Your task to perform on an android device: check google app version Image 0: 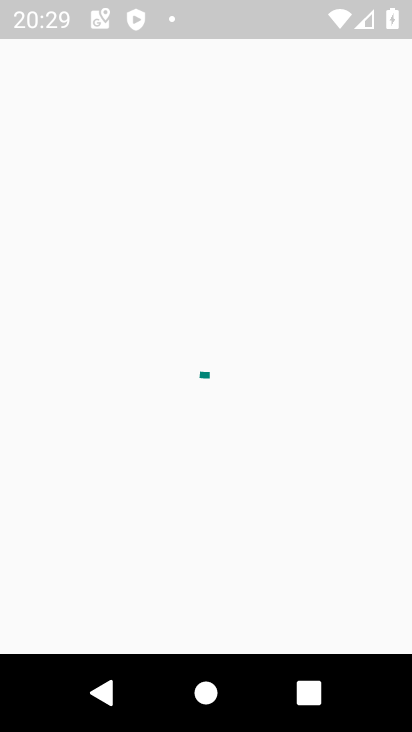
Step 0: press home button
Your task to perform on an android device: check google app version Image 1: 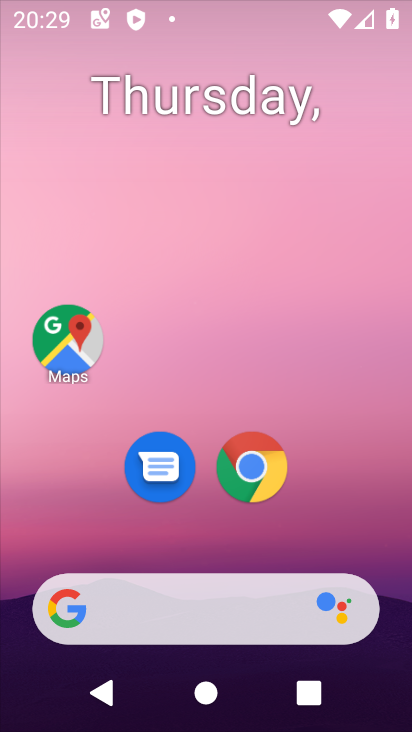
Step 1: drag from (326, 451) to (332, 261)
Your task to perform on an android device: check google app version Image 2: 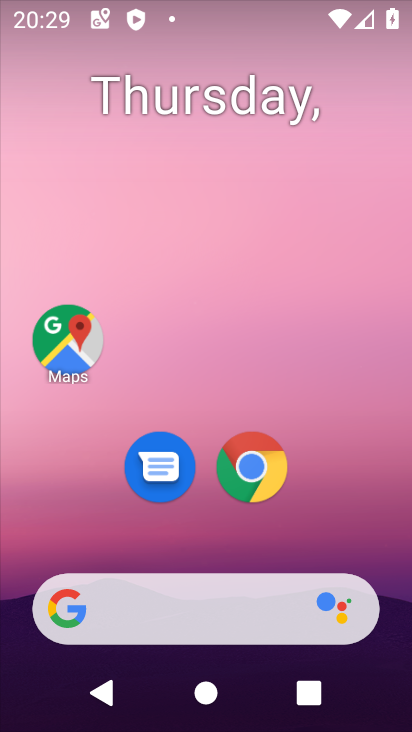
Step 2: drag from (225, 473) to (242, 155)
Your task to perform on an android device: check google app version Image 3: 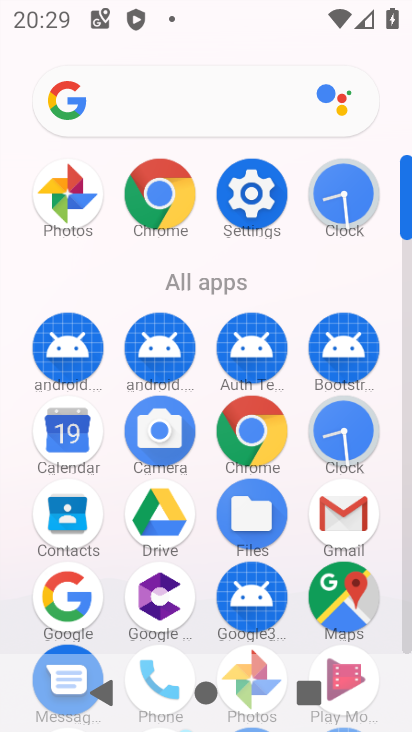
Step 3: click (87, 588)
Your task to perform on an android device: check google app version Image 4: 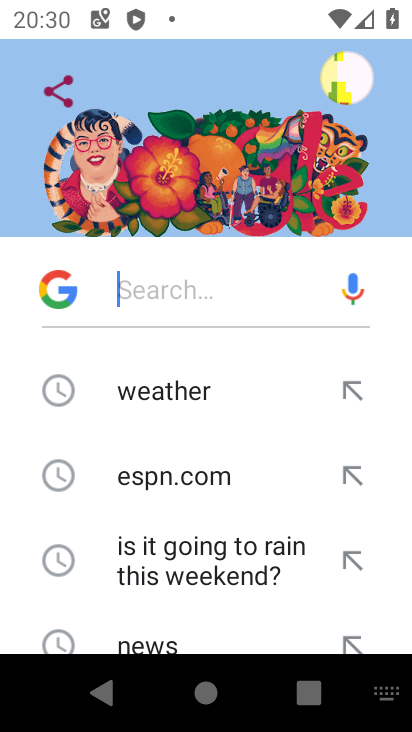
Step 4: click (359, 65)
Your task to perform on an android device: check google app version Image 5: 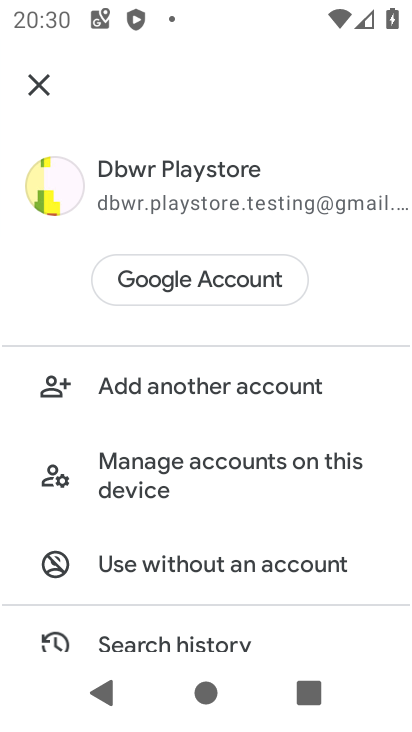
Step 5: click (268, 491)
Your task to perform on an android device: check google app version Image 6: 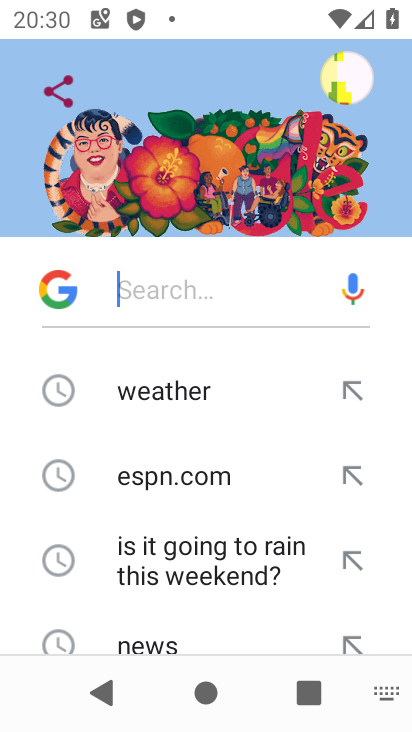
Step 6: drag from (272, 453) to (283, 377)
Your task to perform on an android device: check google app version Image 7: 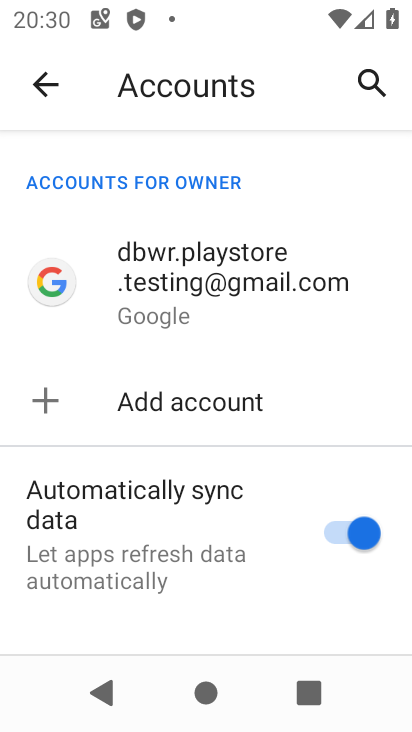
Step 7: click (45, 97)
Your task to perform on an android device: check google app version Image 8: 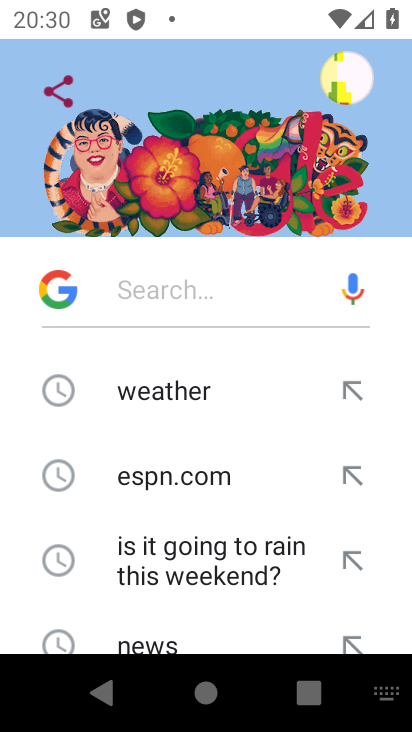
Step 8: click (347, 59)
Your task to perform on an android device: check google app version Image 9: 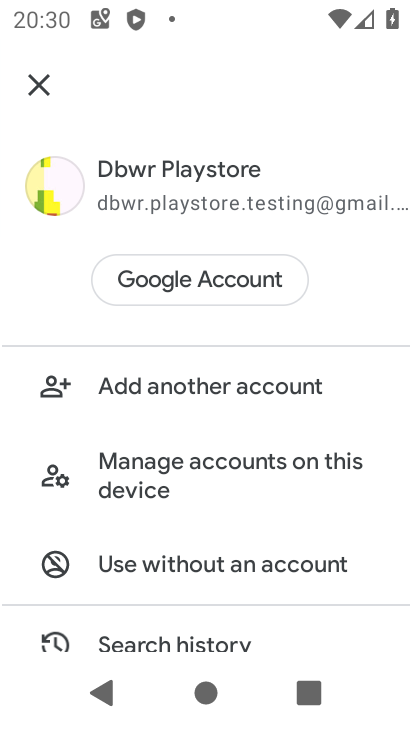
Step 9: drag from (235, 606) to (307, 180)
Your task to perform on an android device: check google app version Image 10: 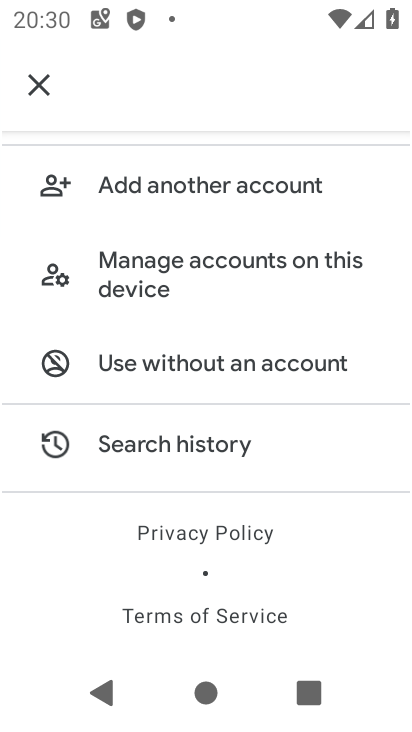
Step 10: drag from (140, 516) to (205, 221)
Your task to perform on an android device: check google app version Image 11: 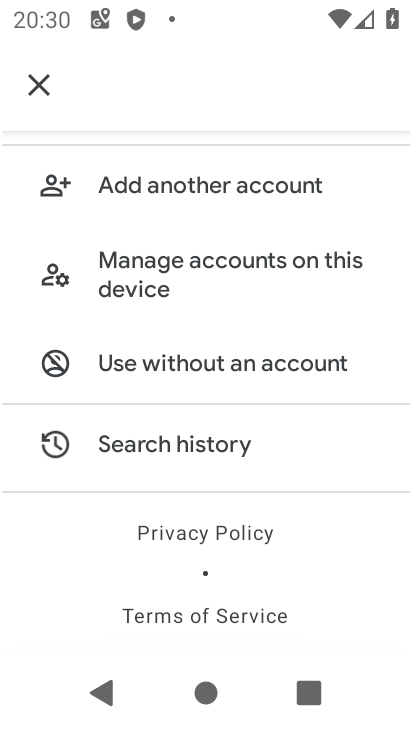
Step 11: drag from (192, 232) to (174, 595)
Your task to perform on an android device: check google app version Image 12: 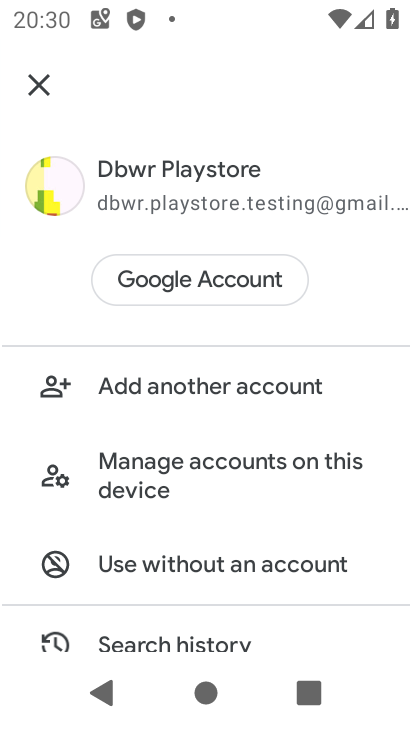
Step 12: click (69, 187)
Your task to perform on an android device: check google app version Image 13: 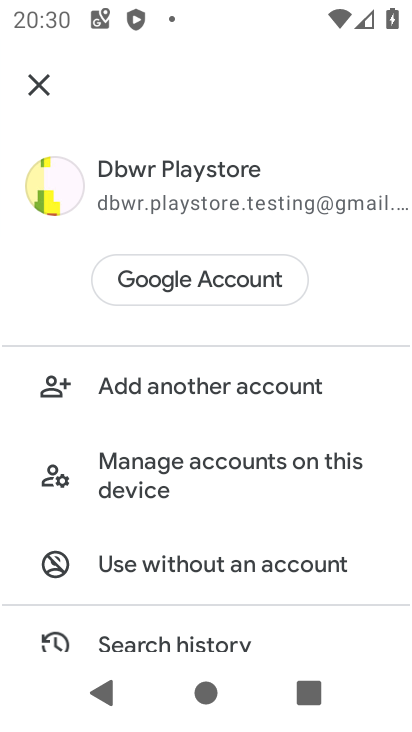
Step 13: click (56, 197)
Your task to perform on an android device: check google app version Image 14: 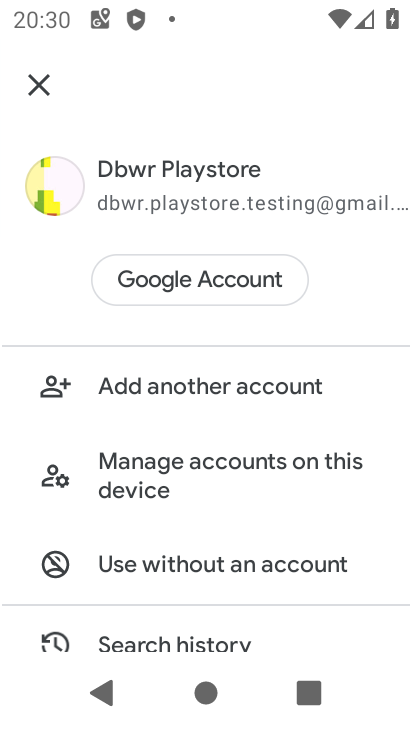
Step 14: click (34, 78)
Your task to perform on an android device: check google app version Image 15: 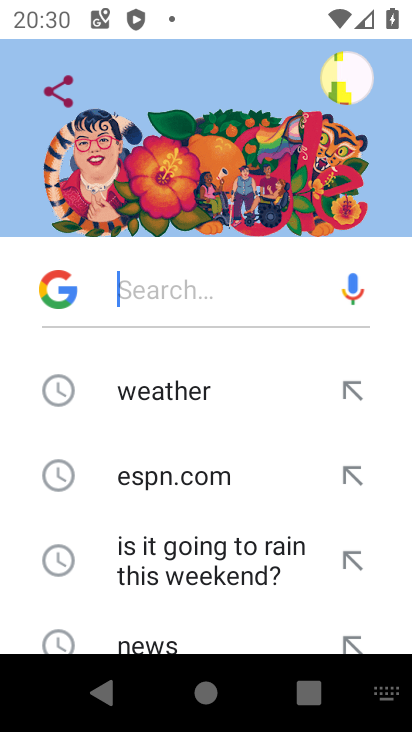
Step 15: click (344, 71)
Your task to perform on an android device: check google app version Image 16: 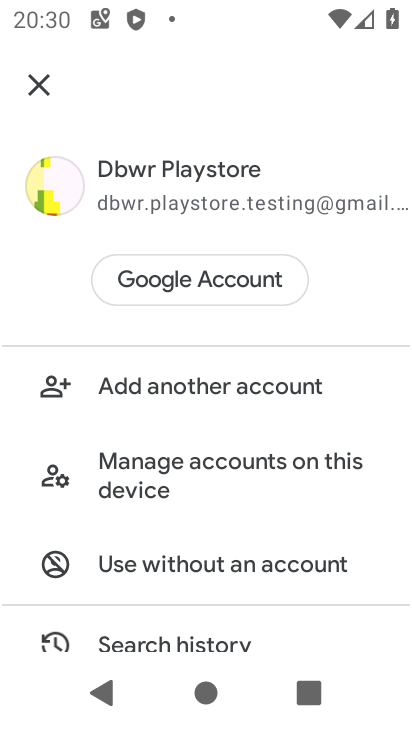
Step 16: drag from (226, 556) to (304, 198)
Your task to perform on an android device: check google app version Image 17: 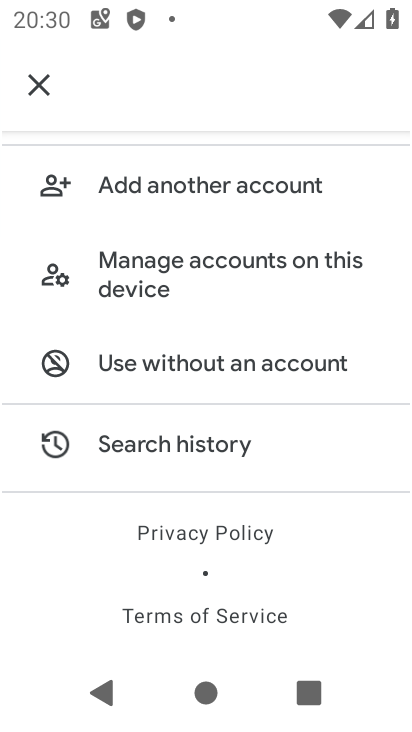
Step 17: drag from (231, 221) to (196, 593)
Your task to perform on an android device: check google app version Image 18: 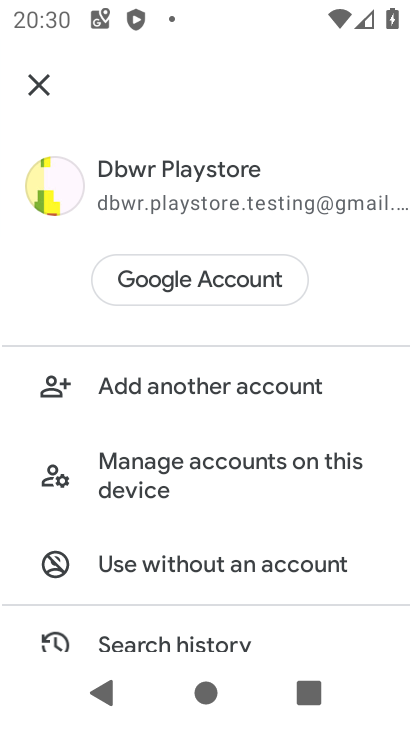
Step 18: click (157, 273)
Your task to perform on an android device: check google app version Image 19: 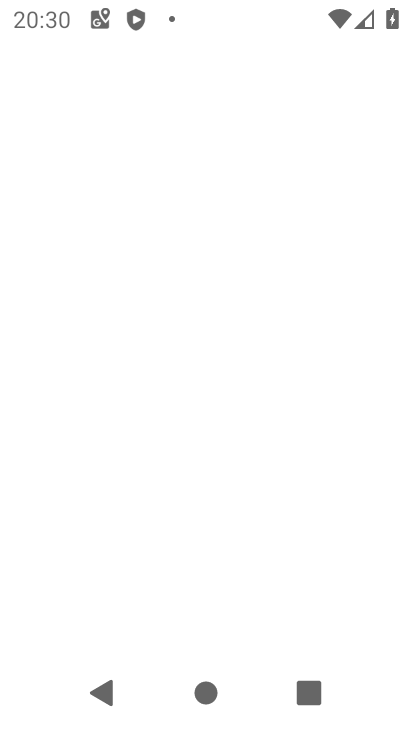
Step 19: drag from (192, 584) to (201, 502)
Your task to perform on an android device: check google app version Image 20: 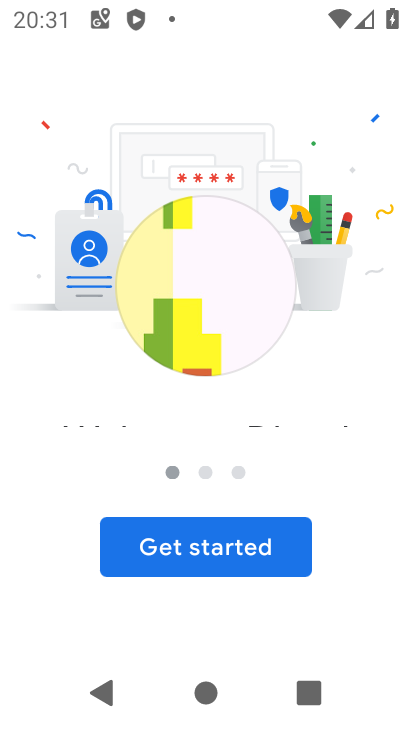
Step 20: click (212, 536)
Your task to perform on an android device: check google app version Image 21: 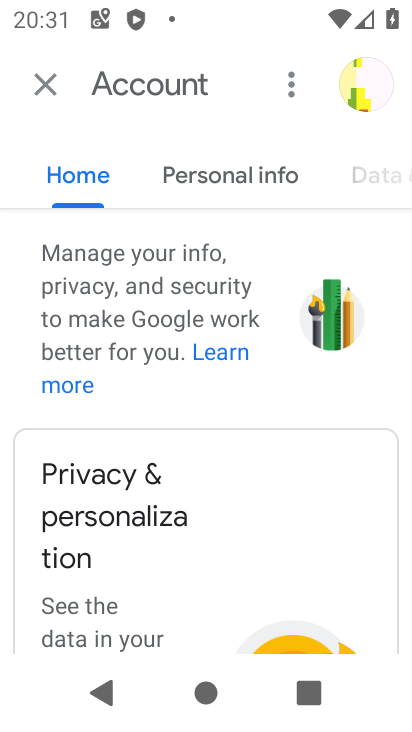
Step 21: click (56, 90)
Your task to perform on an android device: check google app version Image 22: 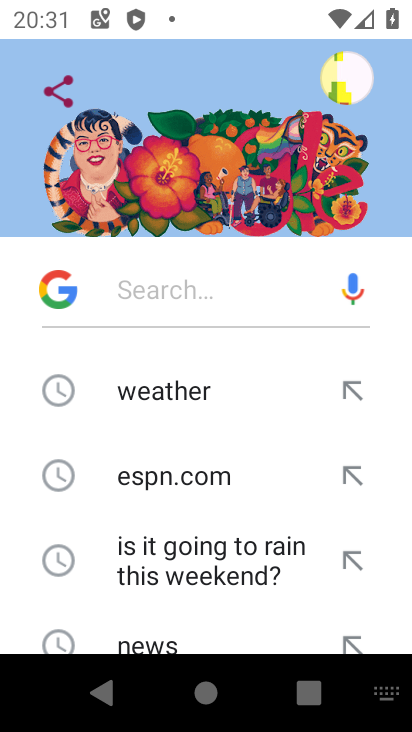
Step 22: click (135, 694)
Your task to perform on an android device: check google app version Image 23: 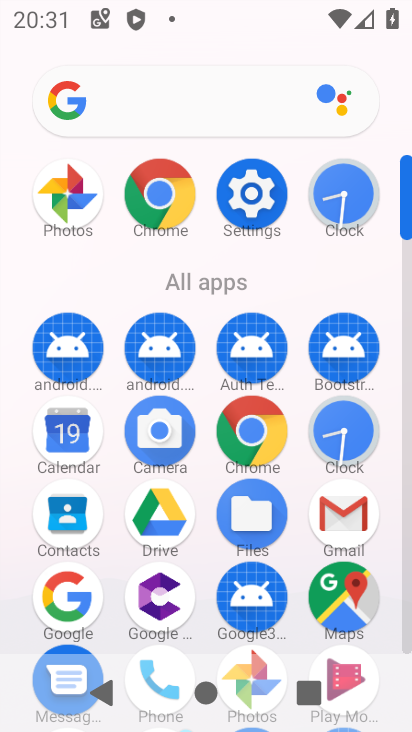
Step 23: drag from (192, 562) to (220, 426)
Your task to perform on an android device: check google app version Image 24: 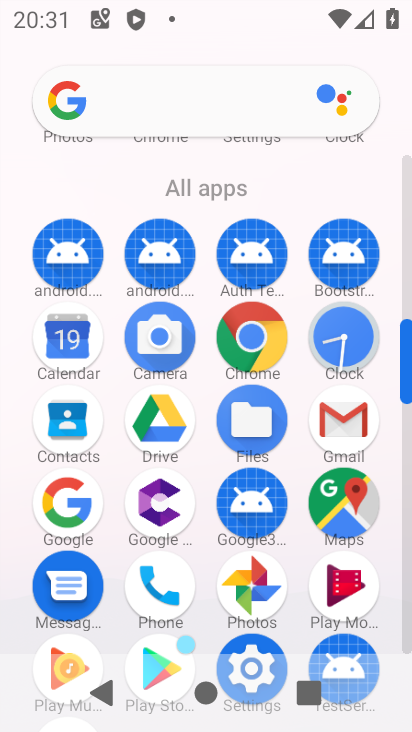
Step 24: click (72, 498)
Your task to perform on an android device: check google app version Image 25: 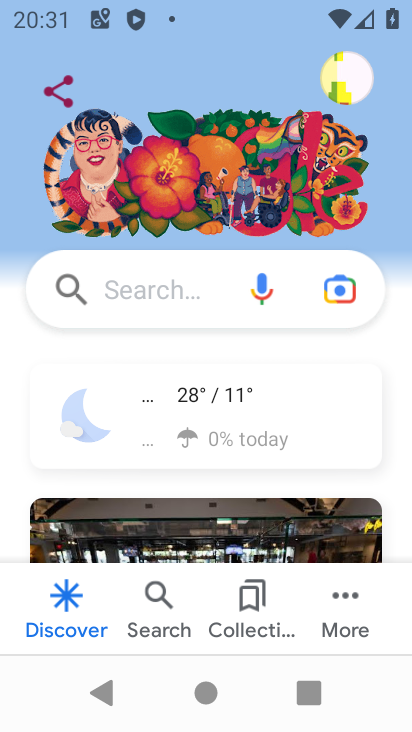
Step 25: click (323, 603)
Your task to perform on an android device: check google app version Image 26: 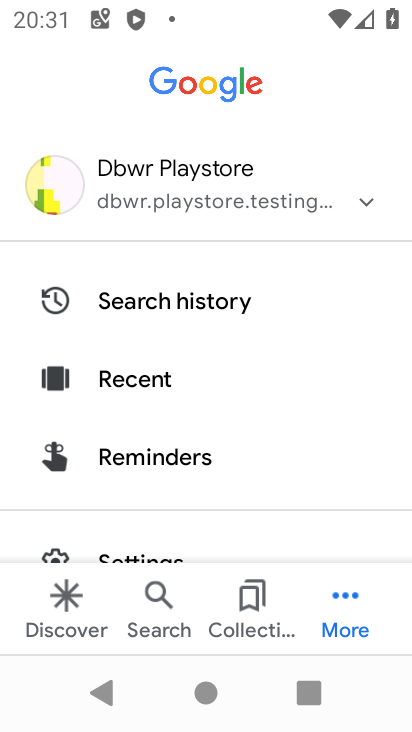
Step 26: drag from (185, 492) to (277, 248)
Your task to perform on an android device: check google app version Image 27: 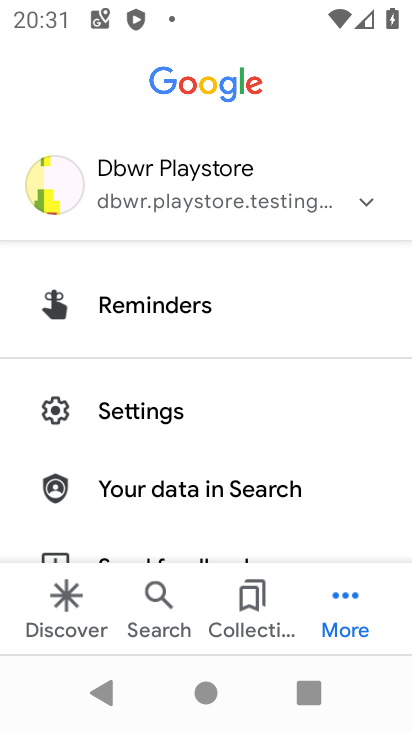
Step 27: click (175, 418)
Your task to perform on an android device: check google app version Image 28: 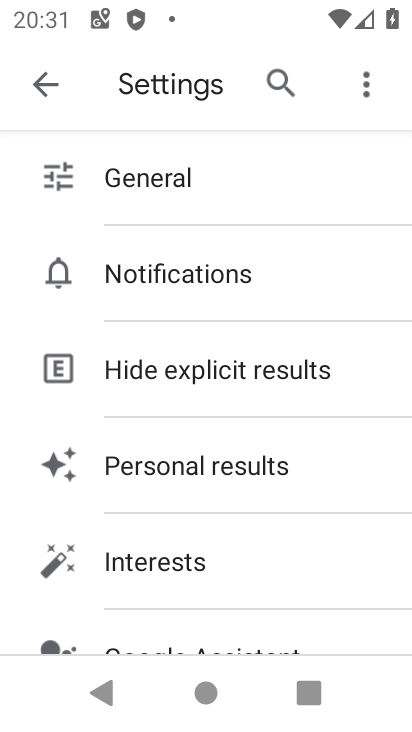
Step 28: drag from (302, 592) to (335, 214)
Your task to perform on an android device: check google app version Image 29: 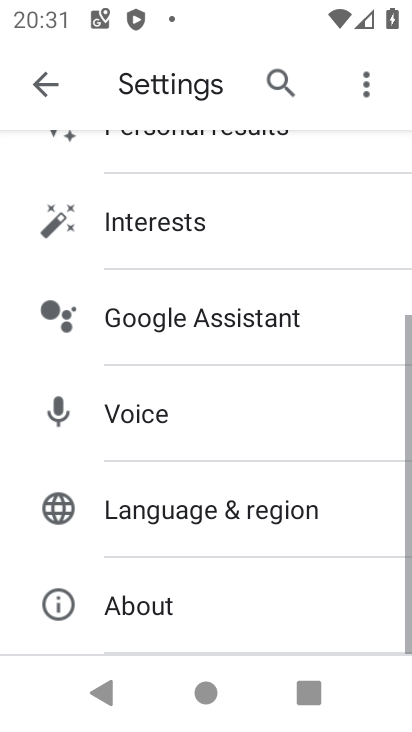
Step 29: drag from (257, 431) to (292, 228)
Your task to perform on an android device: check google app version Image 30: 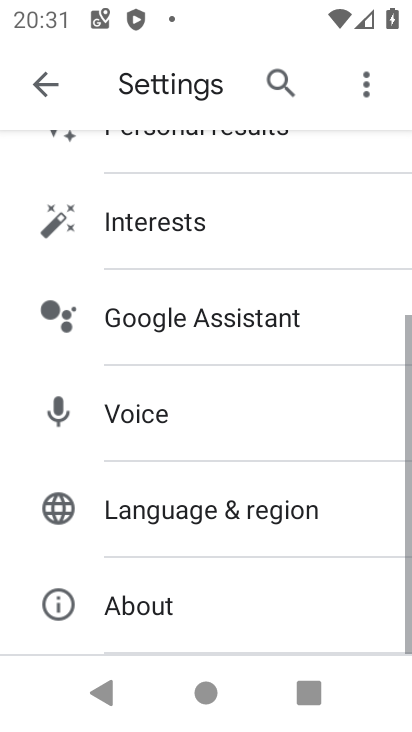
Step 30: click (209, 626)
Your task to perform on an android device: check google app version Image 31: 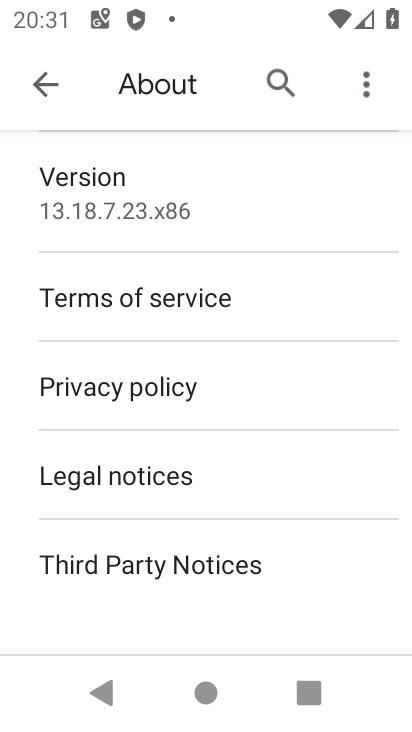
Step 31: task complete